Your task to perform on an android device: Open Maps and search for coffee Image 0: 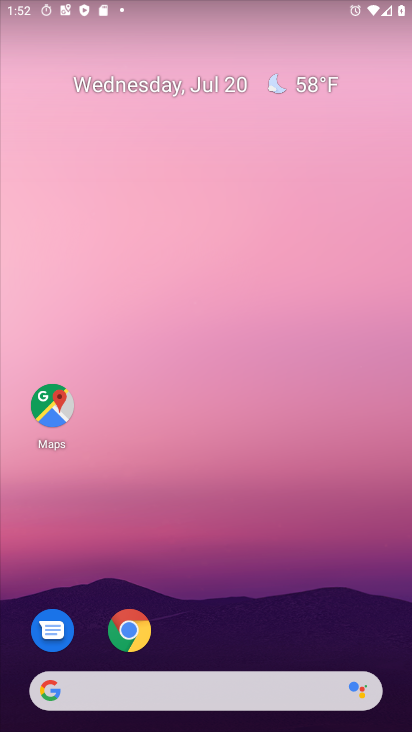
Step 0: press home button
Your task to perform on an android device: Open Maps and search for coffee Image 1: 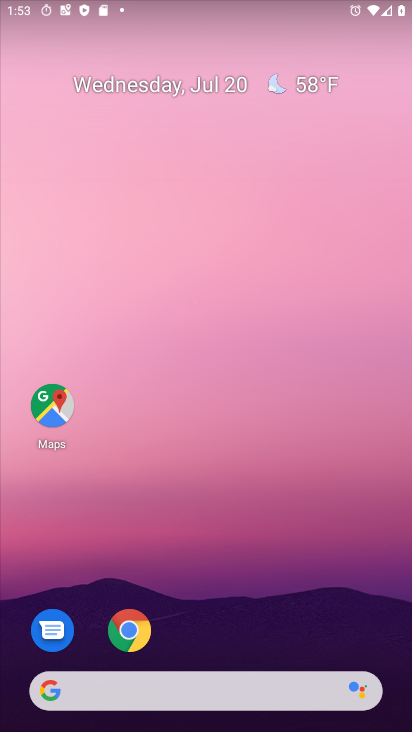
Step 1: click (53, 409)
Your task to perform on an android device: Open Maps and search for coffee Image 2: 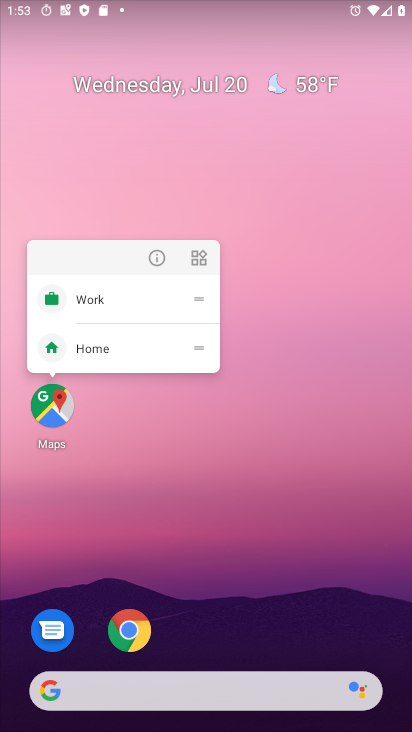
Step 2: click (43, 409)
Your task to perform on an android device: Open Maps and search for coffee Image 3: 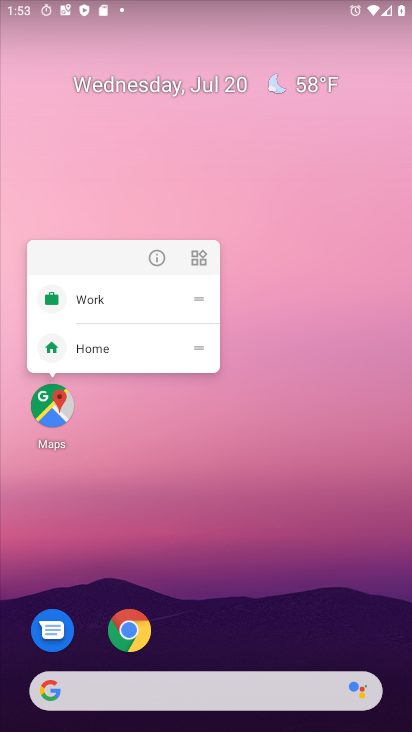
Step 3: click (50, 416)
Your task to perform on an android device: Open Maps and search for coffee Image 4: 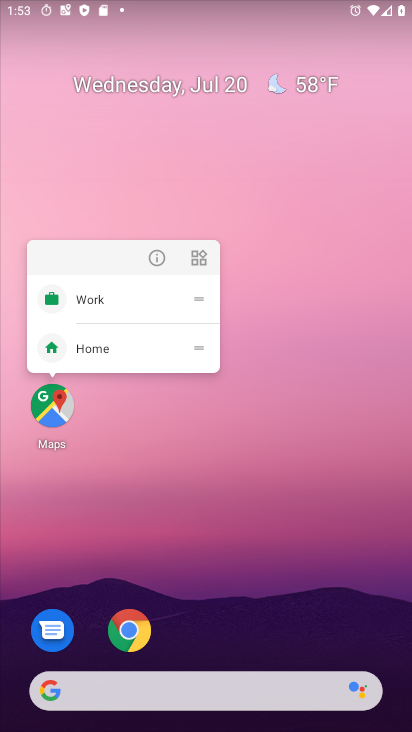
Step 4: click (54, 408)
Your task to perform on an android device: Open Maps and search for coffee Image 5: 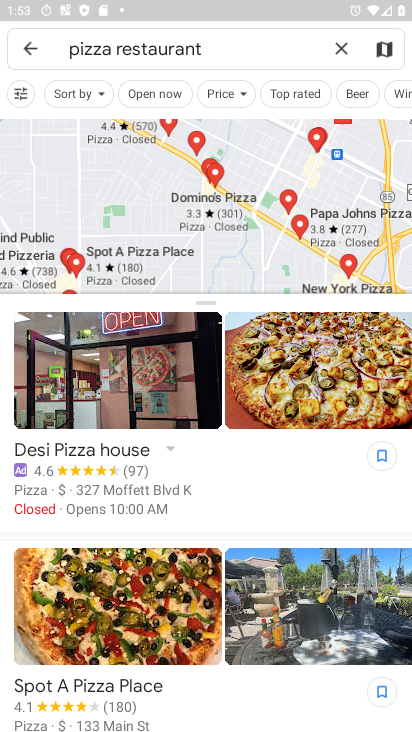
Step 5: click (345, 46)
Your task to perform on an android device: Open Maps and search for coffee Image 6: 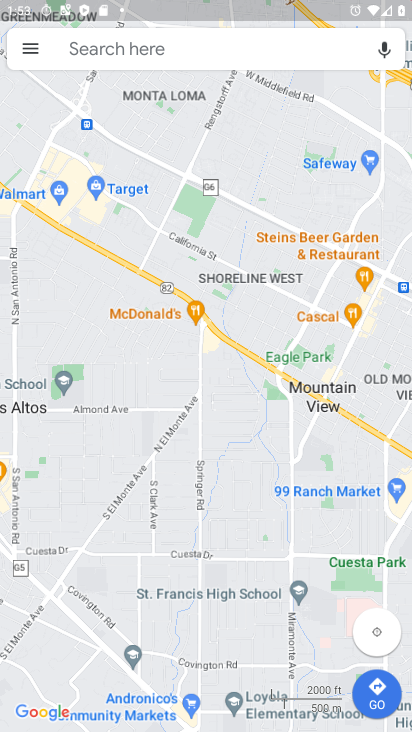
Step 6: click (151, 45)
Your task to perform on an android device: Open Maps and search for coffee Image 7: 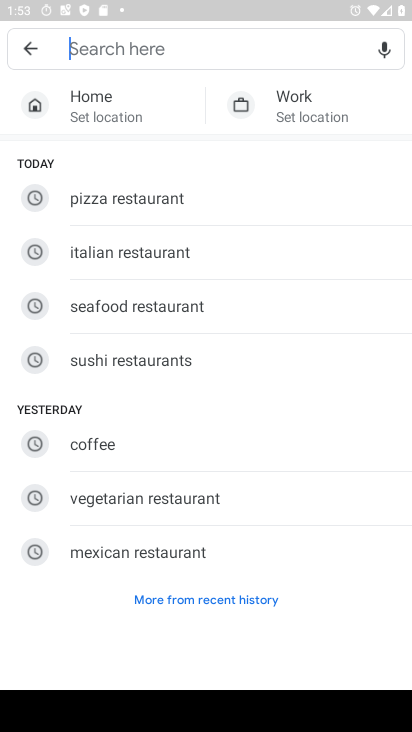
Step 7: click (95, 438)
Your task to perform on an android device: Open Maps and search for coffee Image 8: 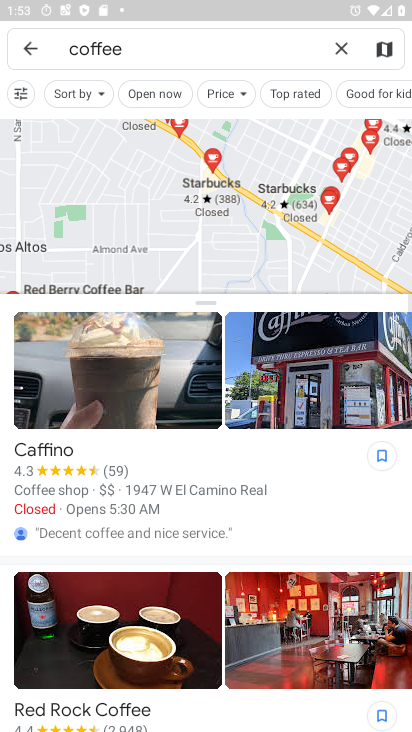
Step 8: task complete